Your task to perform on an android device: What is the recent news? Image 0: 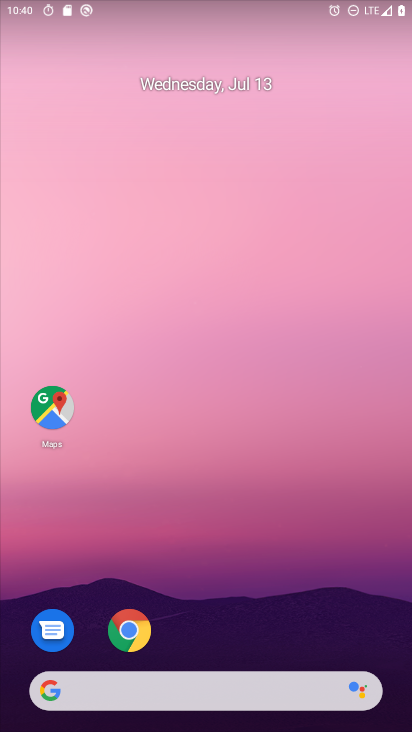
Step 0: drag from (391, 662) to (239, 45)
Your task to perform on an android device: What is the recent news? Image 1: 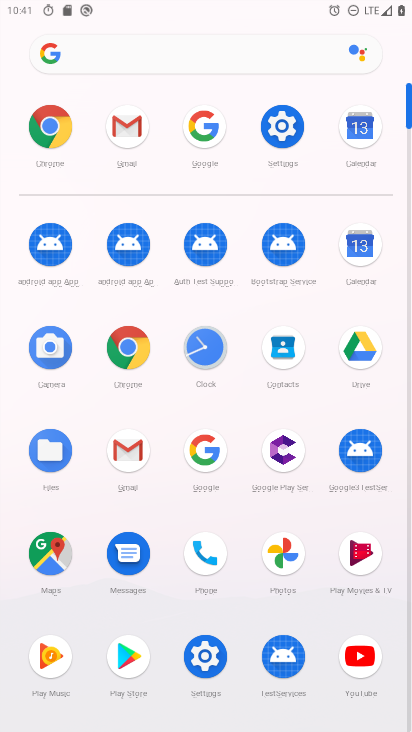
Step 1: click (200, 453)
Your task to perform on an android device: What is the recent news? Image 2: 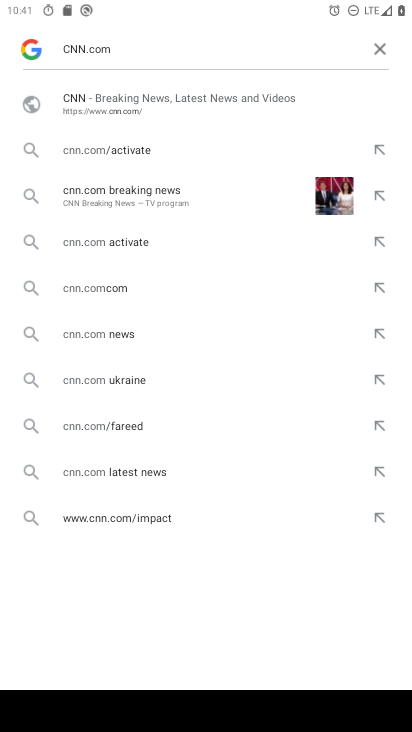
Step 2: click (376, 45)
Your task to perform on an android device: What is the recent news? Image 3: 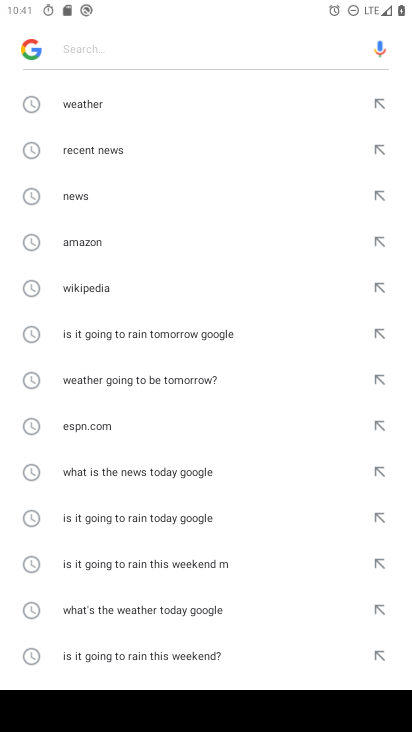
Step 3: click (127, 147)
Your task to perform on an android device: What is the recent news? Image 4: 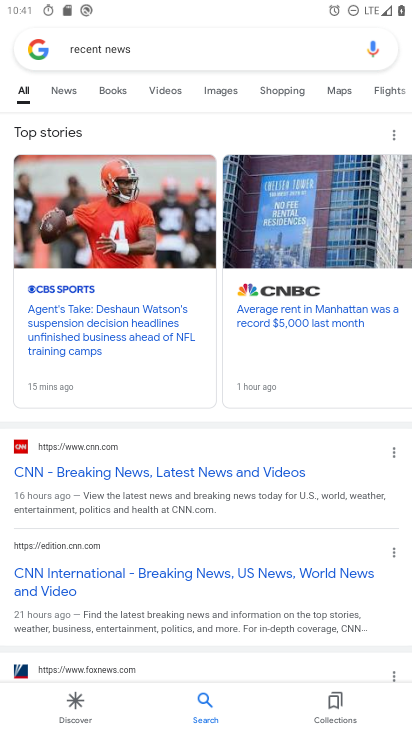
Step 4: task complete